Your task to perform on an android device: Go to location settings Image 0: 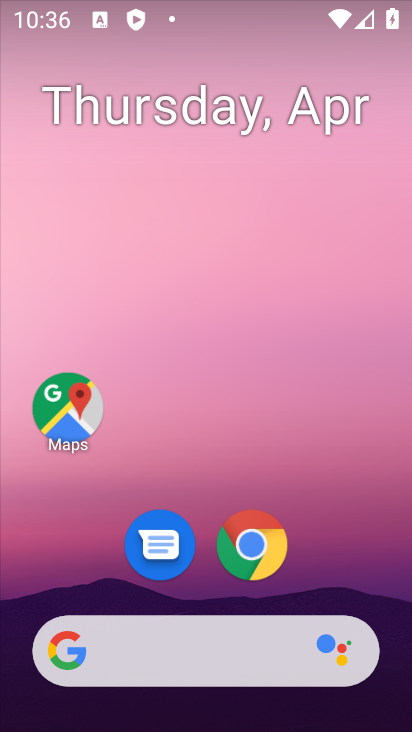
Step 0: drag from (62, 604) to (304, 166)
Your task to perform on an android device: Go to location settings Image 1: 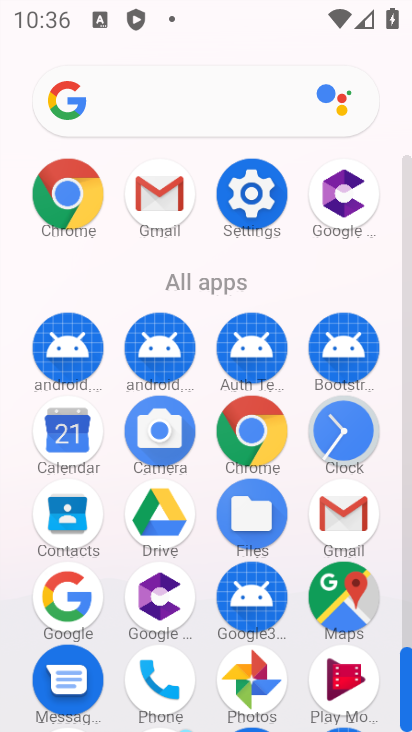
Step 1: click (275, 187)
Your task to perform on an android device: Go to location settings Image 2: 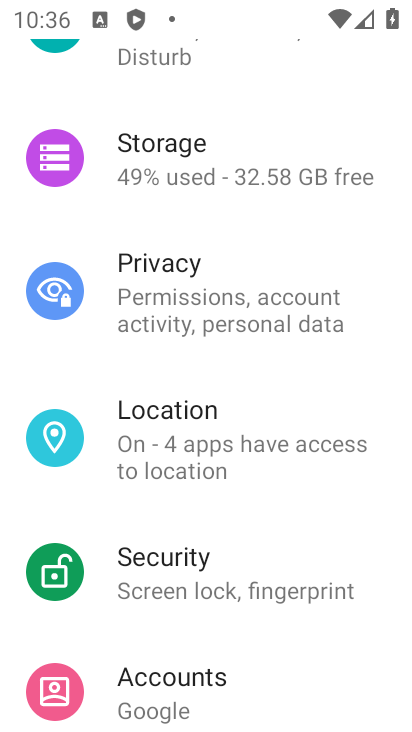
Step 2: click (187, 452)
Your task to perform on an android device: Go to location settings Image 3: 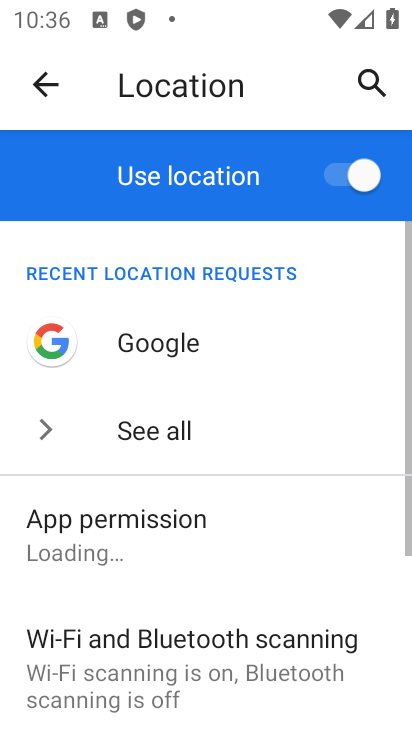
Step 3: drag from (69, 609) to (268, 256)
Your task to perform on an android device: Go to location settings Image 4: 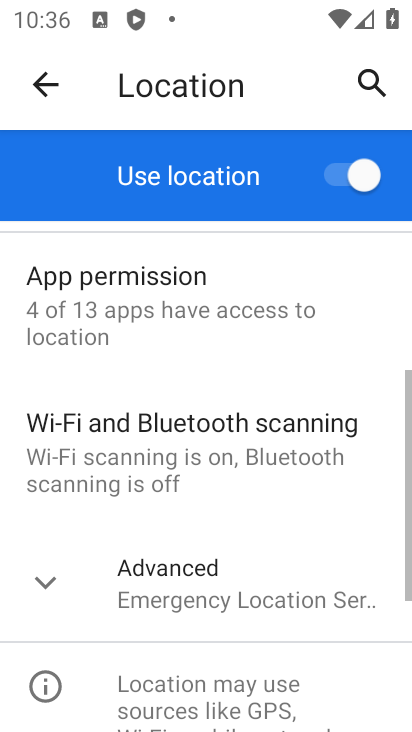
Step 4: drag from (89, 668) to (255, 338)
Your task to perform on an android device: Go to location settings Image 5: 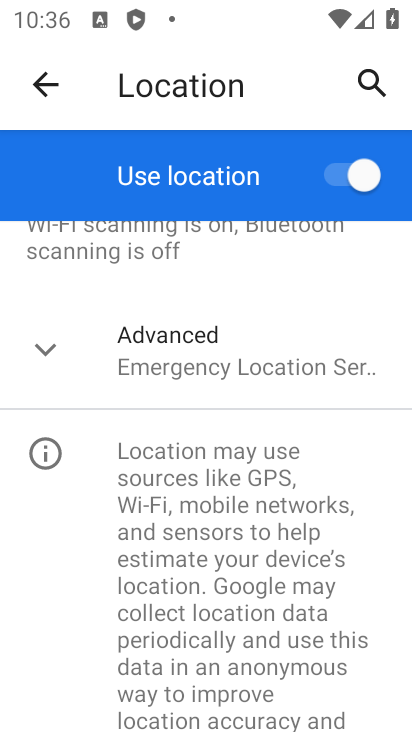
Step 5: drag from (218, 514) to (341, 303)
Your task to perform on an android device: Go to location settings Image 6: 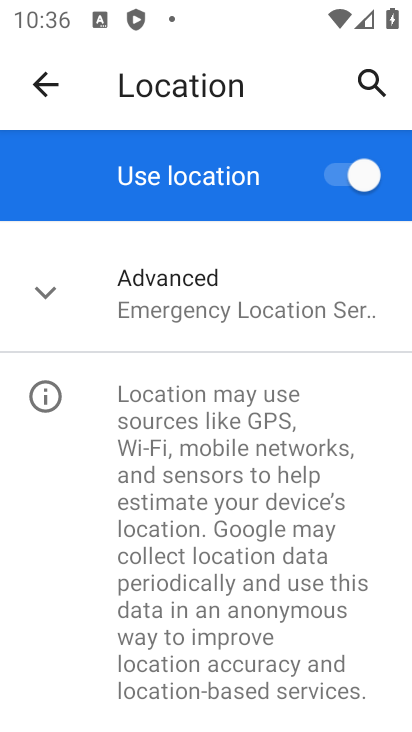
Step 6: click (274, 299)
Your task to perform on an android device: Go to location settings Image 7: 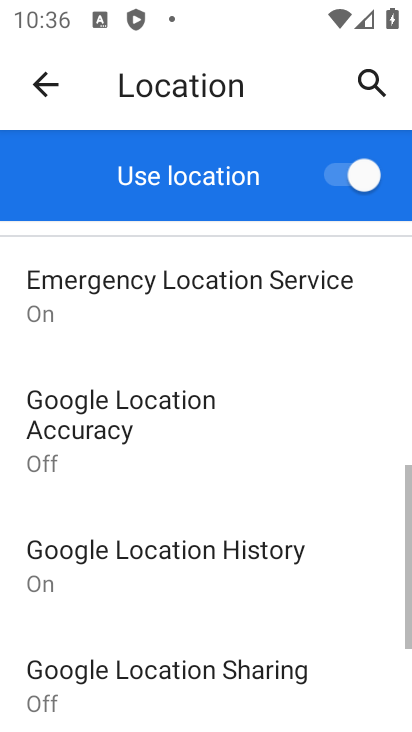
Step 7: task complete